Your task to perform on an android device: set an alarm Image 0: 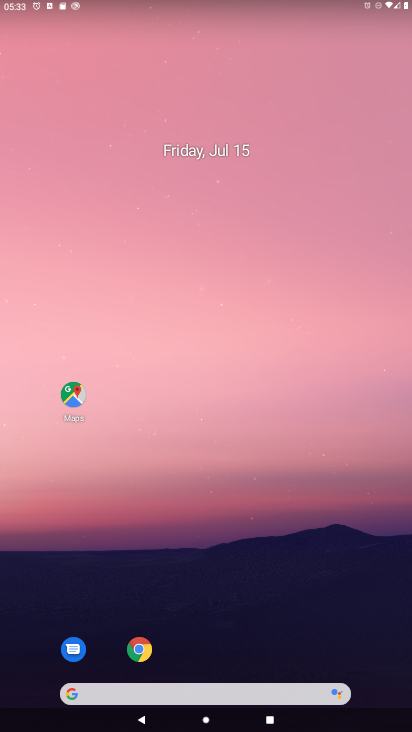
Step 0: drag from (375, 662) to (349, 128)
Your task to perform on an android device: set an alarm Image 1: 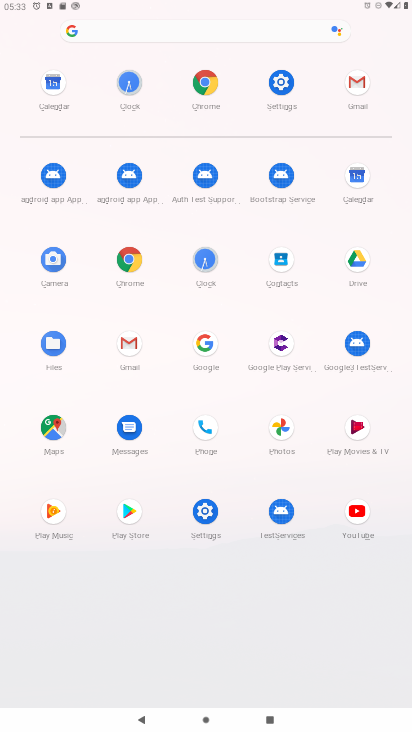
Step 1: click (205, 256)
Your task to perform on an android device: set an alarm Image 2: 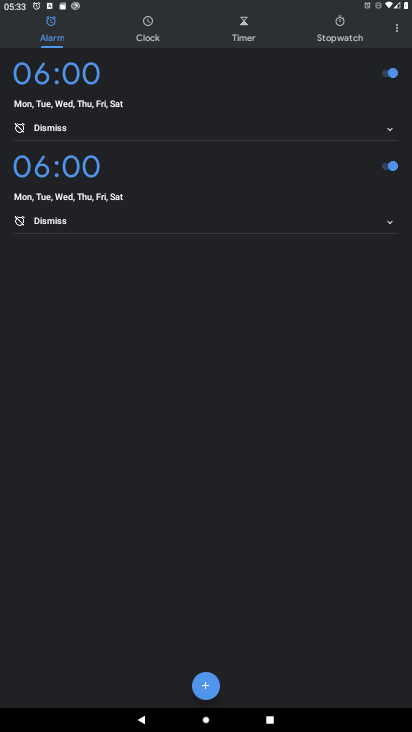
Step 2: click (206, 683)
Your task to perform on an android device: set an alarm Image 3: 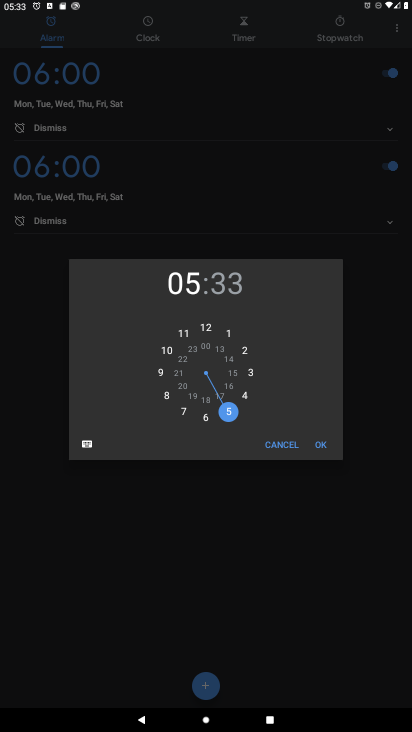
Step 3: click (206, 419)
Your task to perform on an android device: set an alarm Image 4: 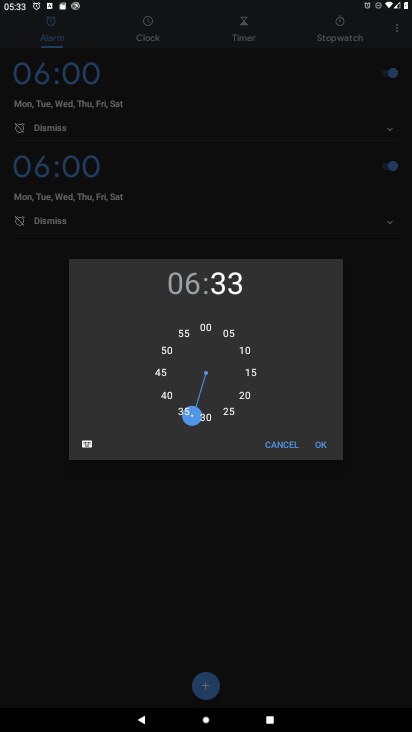
Step 4: click (257, 374)
Your task to perform on an android device: set an alarm Image 5: 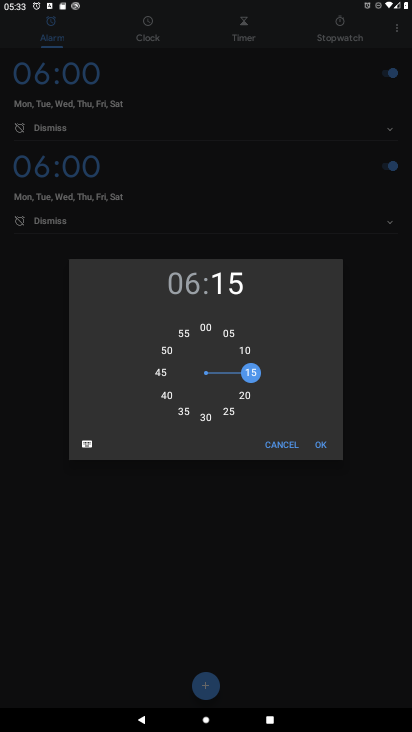
Step 5: click (321, 445)
Your task to perform on an android device: set an alarm Image 6: 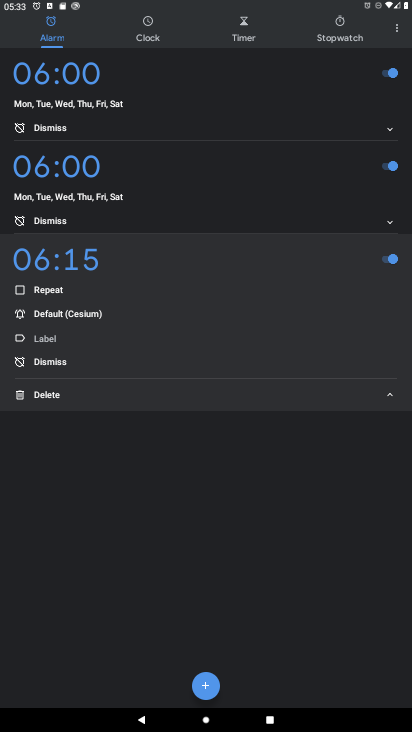
Step 6: click (19, 293)
Your task to perform on an android device: set an alarm Image 7: 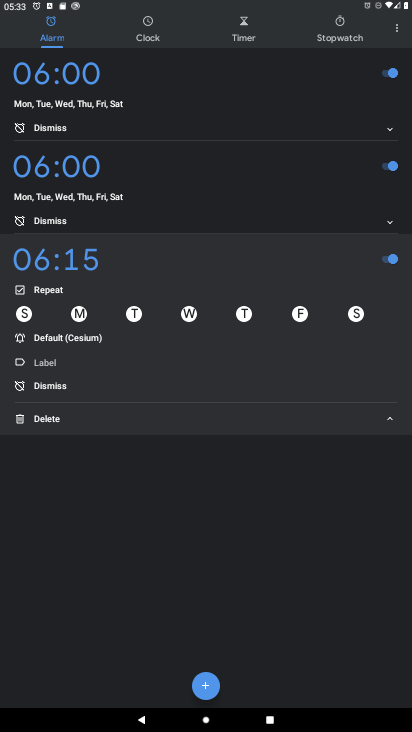
Step 7: click (18, 317)
Your task to perform on an android device: set an alarm Image 8: 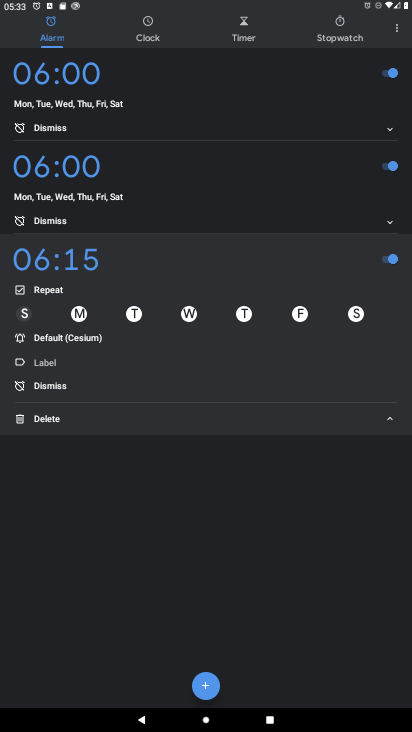
Step 8: click (387, 415)
Your task to perform on an android device: set an alarm Image 9: 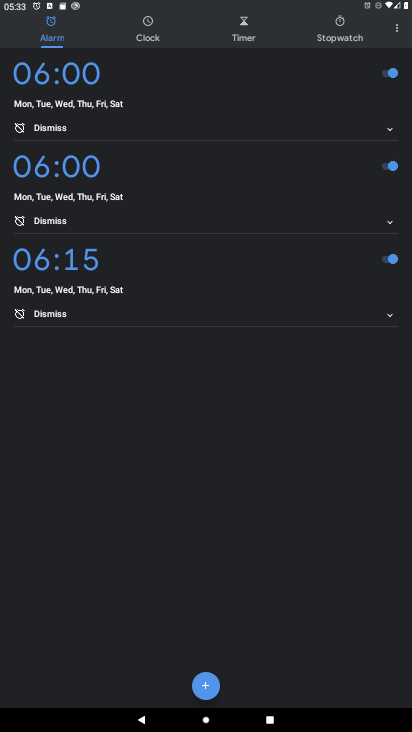
Step 9: task complete